Your task to perform on an android device: open chrome privacy settings Image 0: 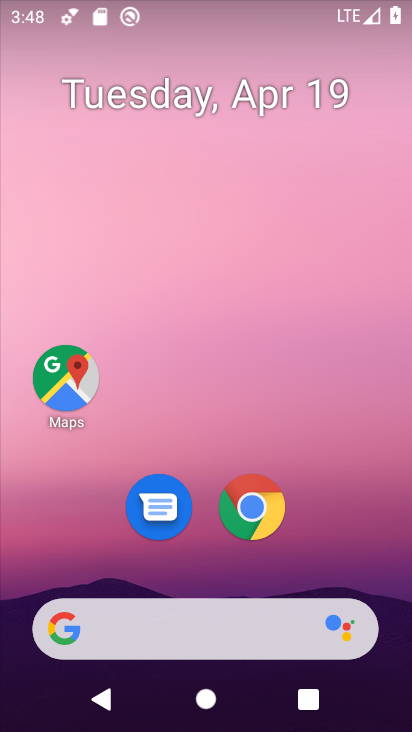
Step 0: click (235, 518)
Your task to perform on an android device: open chrome privacy settings Image 1: 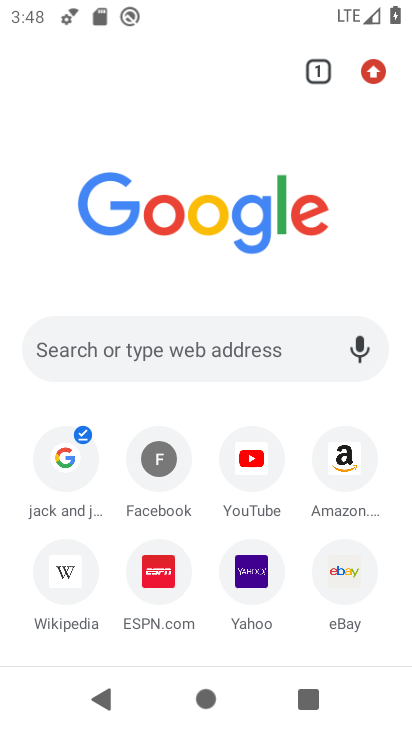
Step 1: click (359, 67)
Your task to perform on an android device: open chrome privacy settings Image 2: 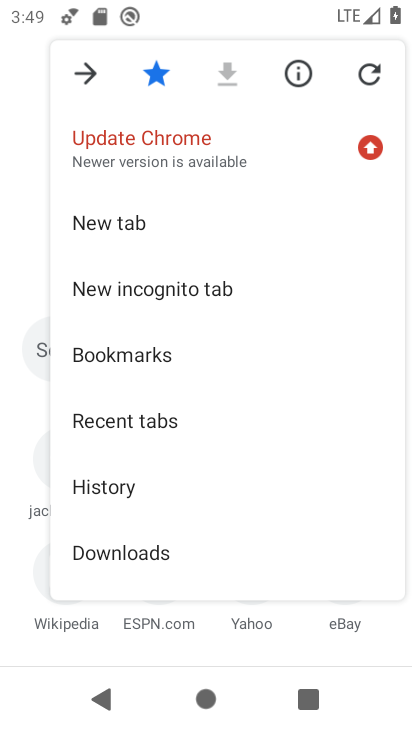
Step 2: drag from (93, 511) to (166, 218)
Your task to perform on an android device: open chrome privacy settings Image 3: 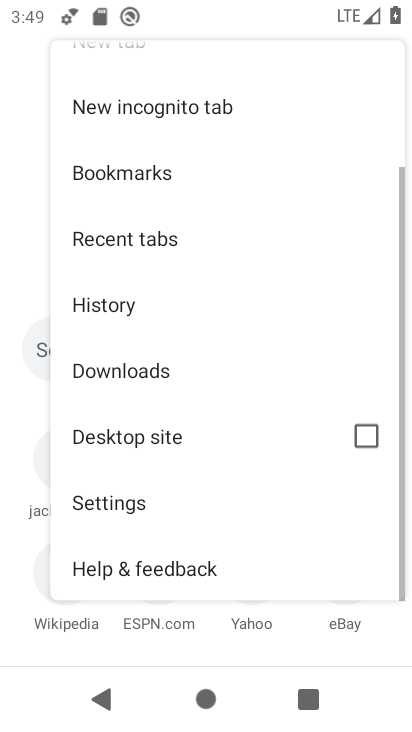
Step 3: click (163, 500)
Your task to perform on an android device: open chrome privacy settings Image 4: 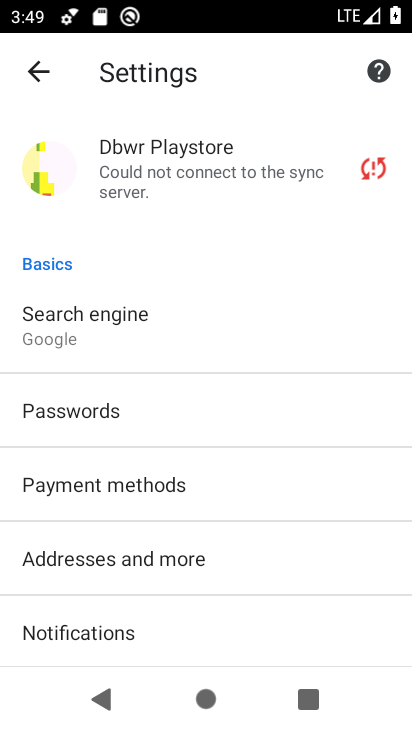
Step 4: drag from (178, 599) to (196, 403)
Your task to perform on an android device: open chrome privacy settings Image 5: 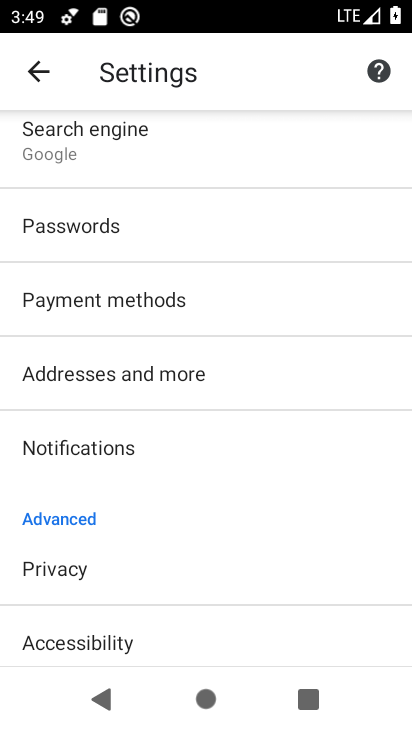
Step 5: drag from (202, 523) to (217, 373)
Your task to perform on an android device: open chrome privacy settings Image 6: 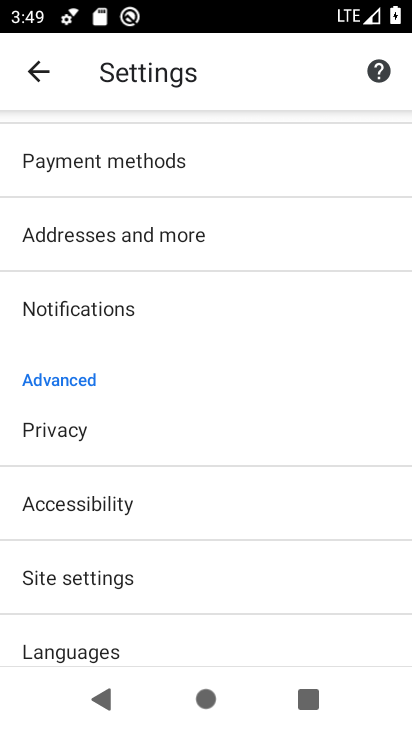
Step 6: click (179, 442)
Your task to perform on an android device: open chrome privacy settings Image 7: 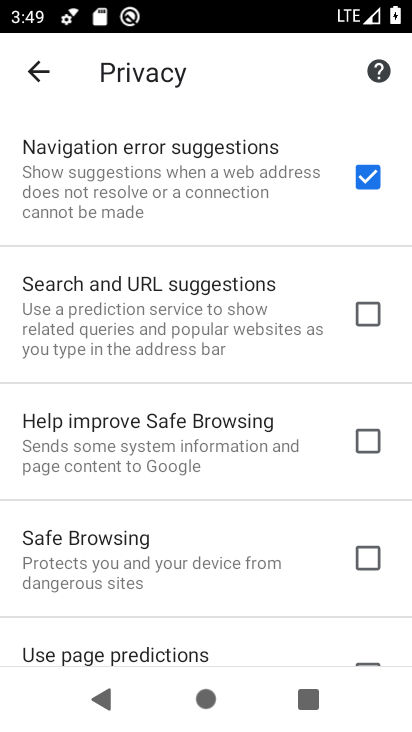
Step 7: task complete